Your task to perform on an android device: snooze an email in the gmail app Image 0: 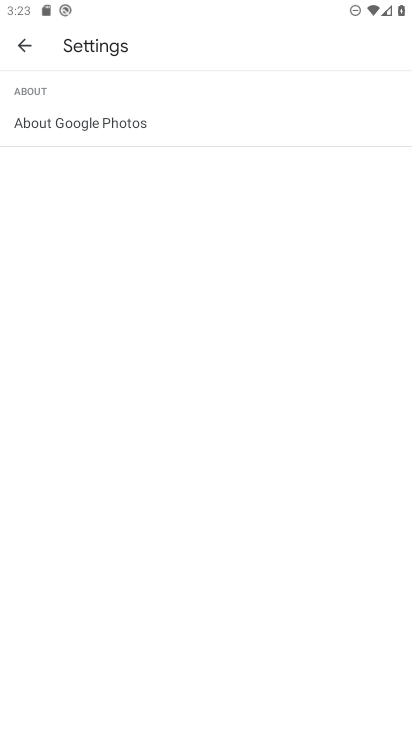
Step 0: press home button
Your task to perform on an android device: snooze an email in the gmail app Image 1: 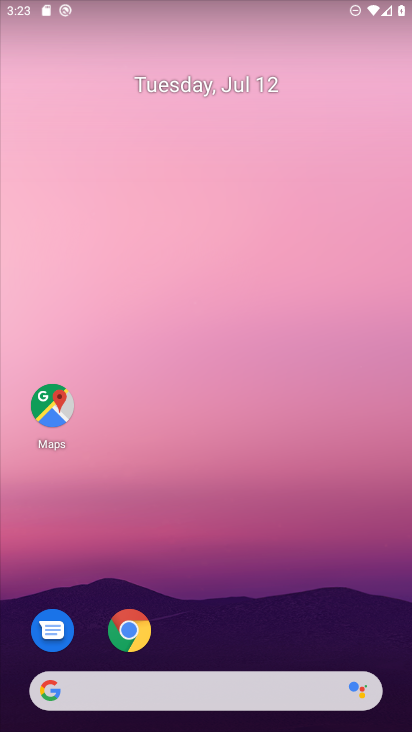
Step 1: drag from (147, 623) to (200, 45)
Your task to perform on an android device: snooze an email in the gmail app Image 2: 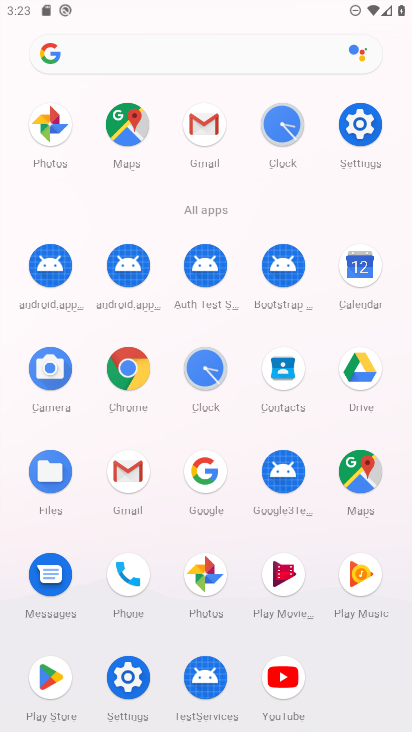
Step 2: click (121, 473)
Your task to perform on an android device: snooze an email in the gmail app Image 3: 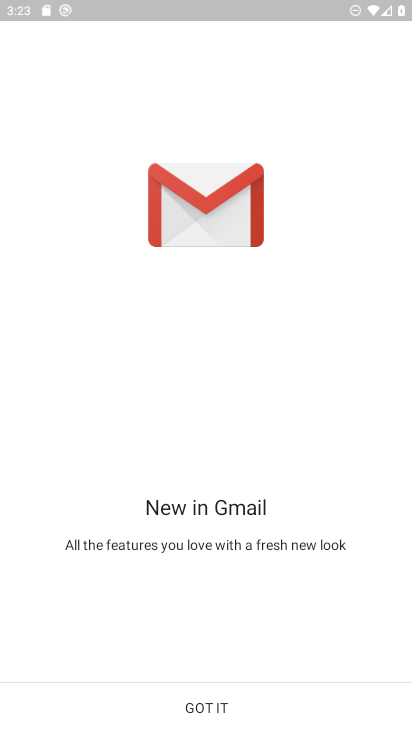
Step 3: click (214, 705)
Your task to perform on an android device: snooze an email in the gmail app Image 4: 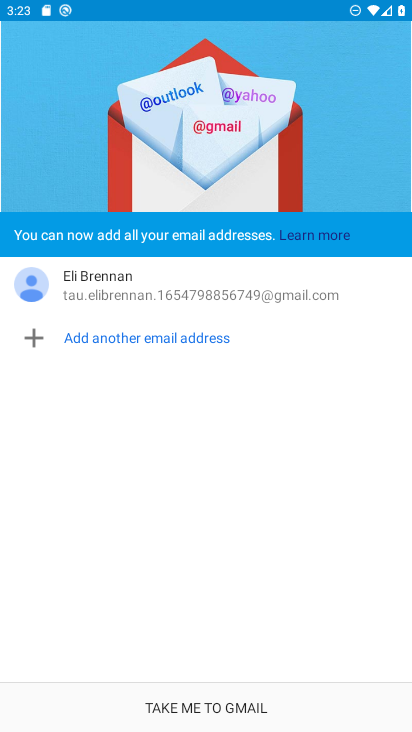
Step 4: click (215, 705)
Your task to perform on an android device: snooze an email in the gmail app Image 5: 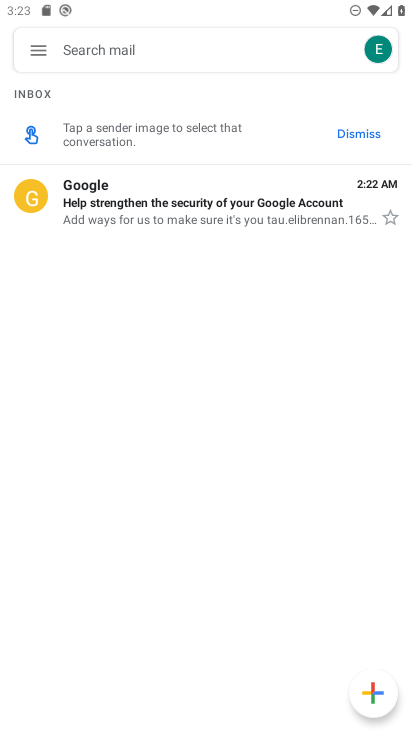
Step 5: click (305, 213)
Your task to perform on an android device: snooze an email in the gmail app Image 6: 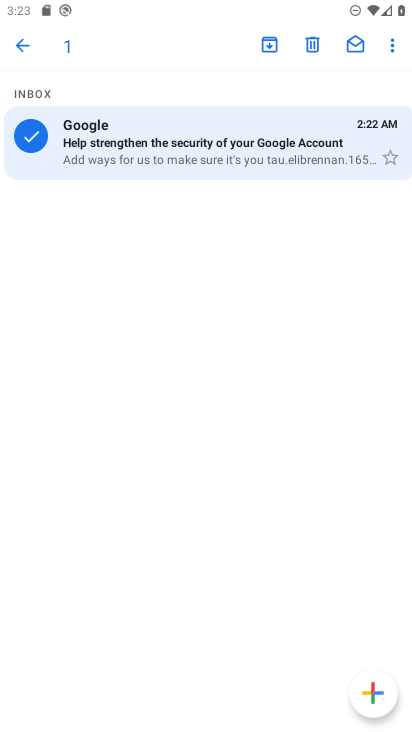
Step 6: click (392, 35)
Your task to perform on an android device: snooze an email in the gmail app Image 7: 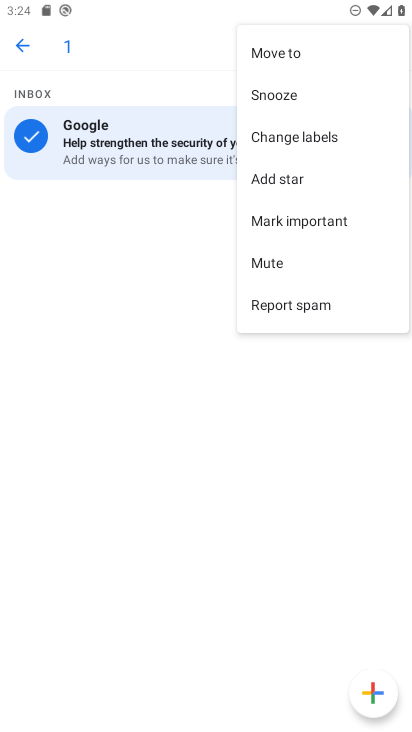
Step 7: click (367, 91)
Your task to perform on an android device: snooze an email in the gmail app Image 8: 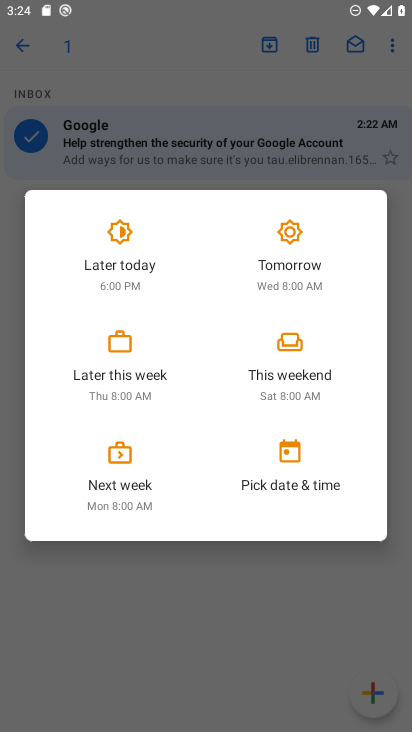
Step 8: click (97, 459)
Your task to perform on an android device: snooze an email in the gmail app Image 9: 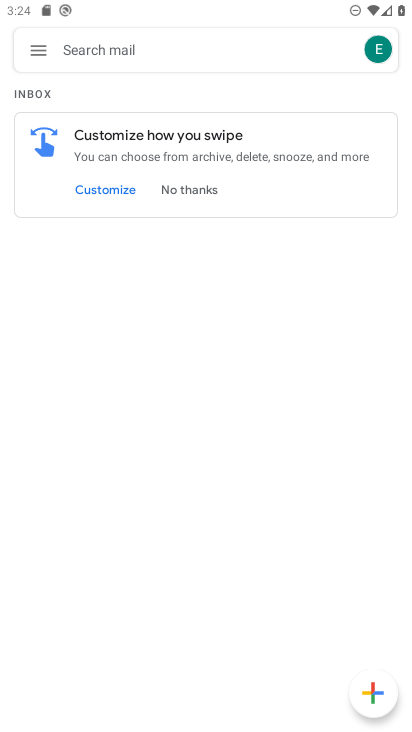
Step 9: task complete